Your task to perform on an android device: star an email in the gmail app Image 0: 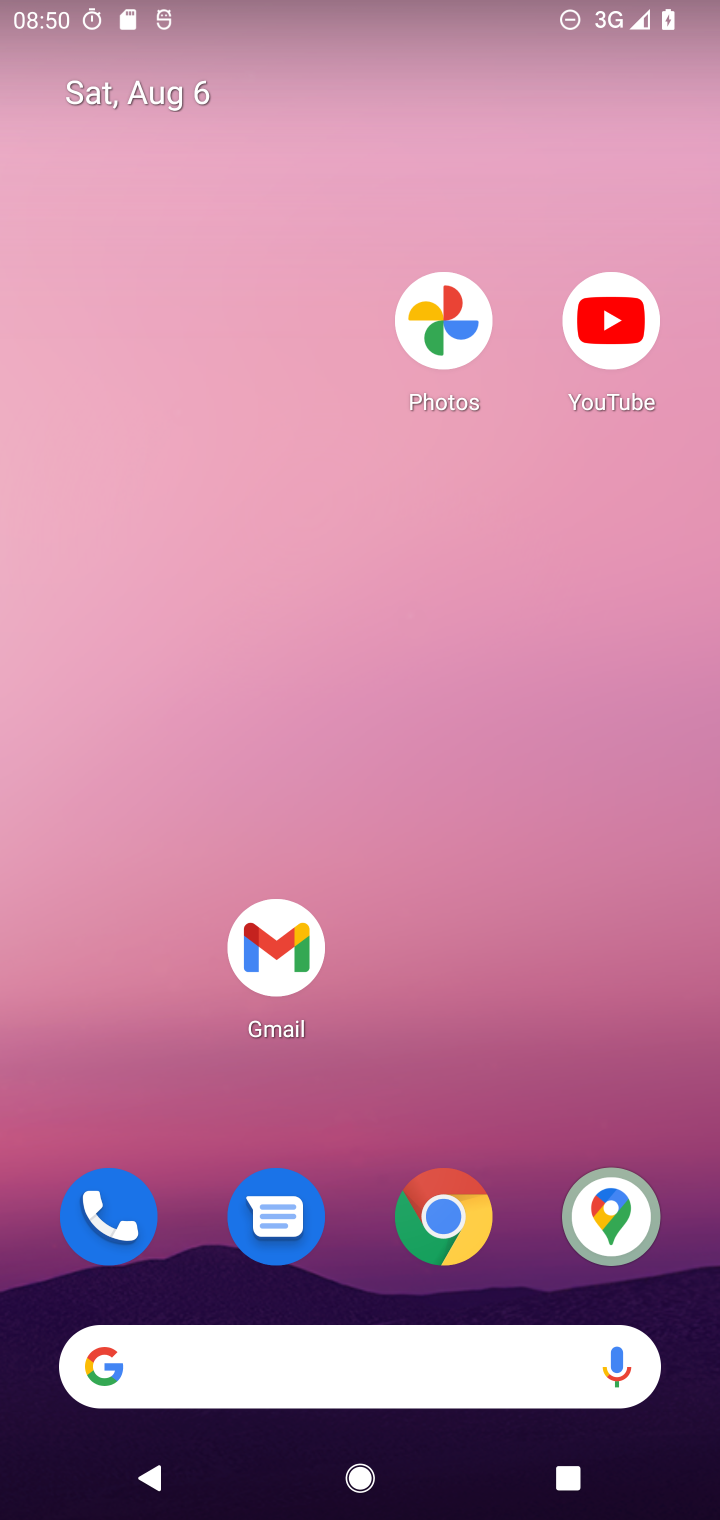
Step 0: drag from (596, 1024) to (619, 150)
Your task to perform on an android device: star an email in the gmail app Image 1: 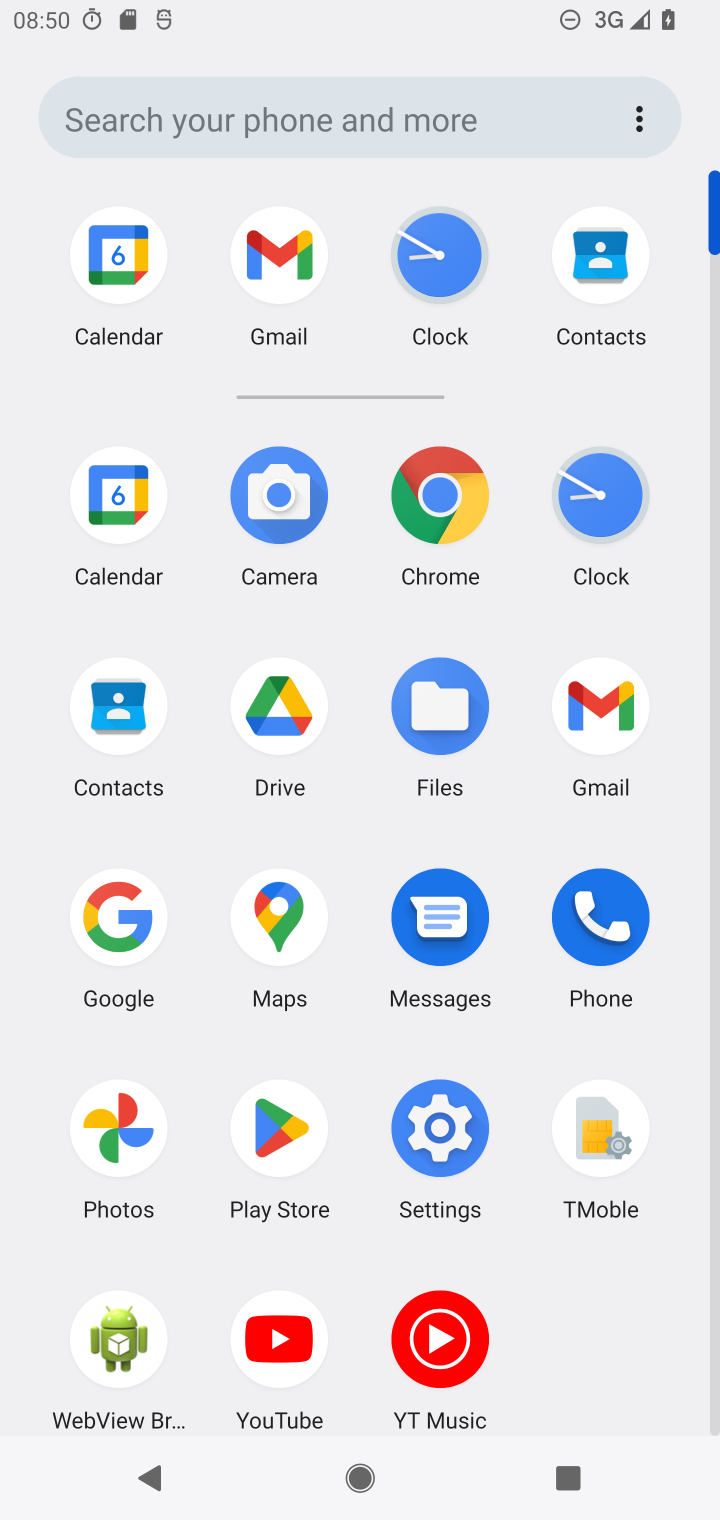
Step 1: click (581, 710)
Your task to perform on an android device: star an email in the gmail app Image 2: 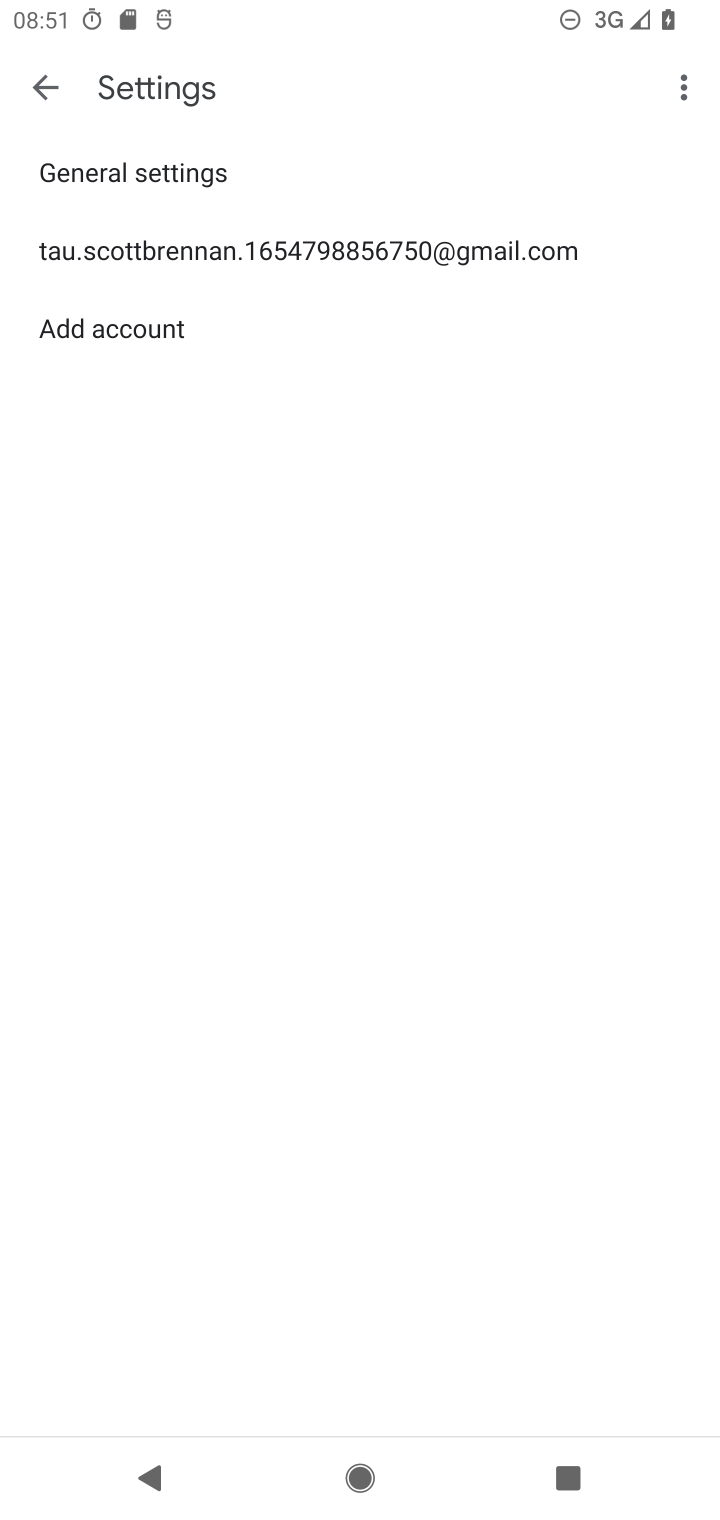
Step 2: press back button
Your task to perform on an android device: star an email in the gmail app Image 3: 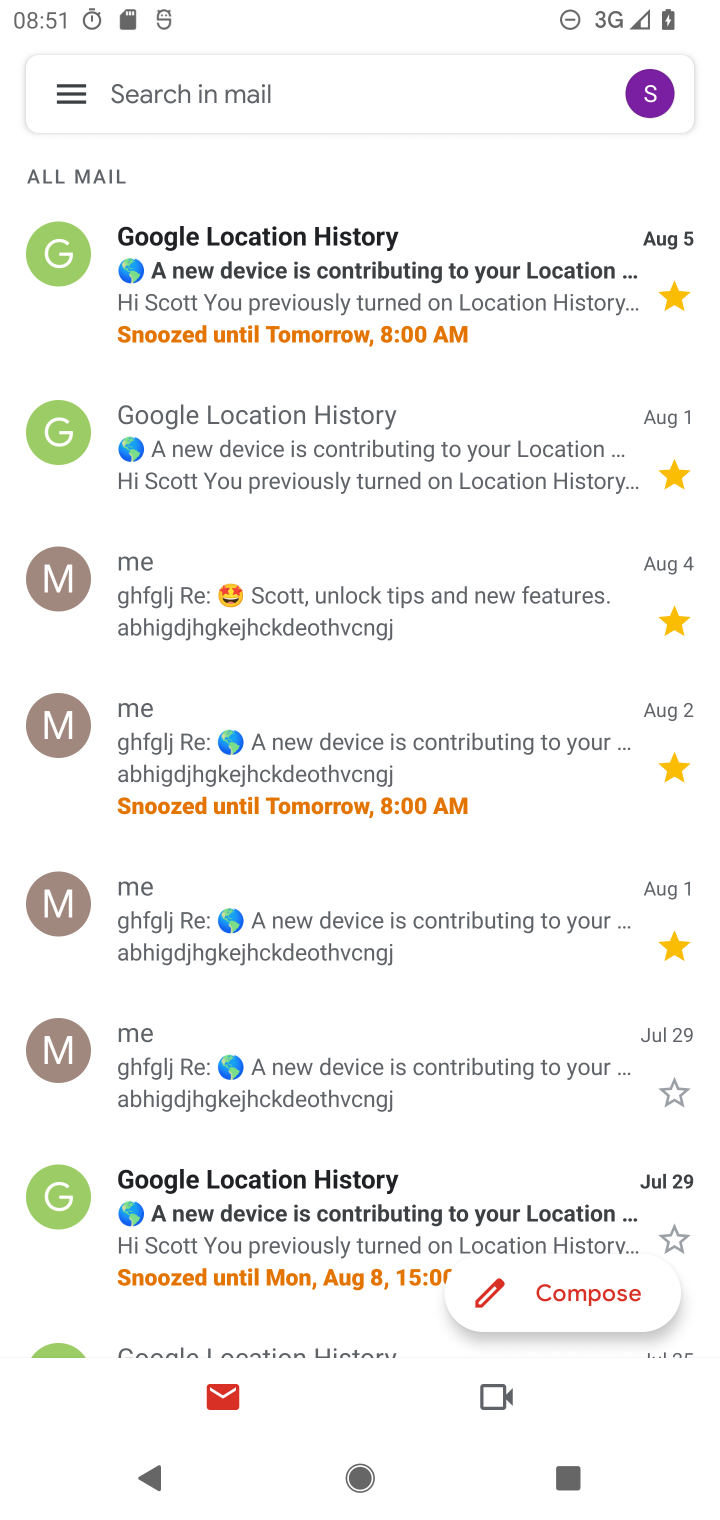
Step 3: click (670, 1083)
Your task to perform on an android device: star an email in the gmail app Image 4: 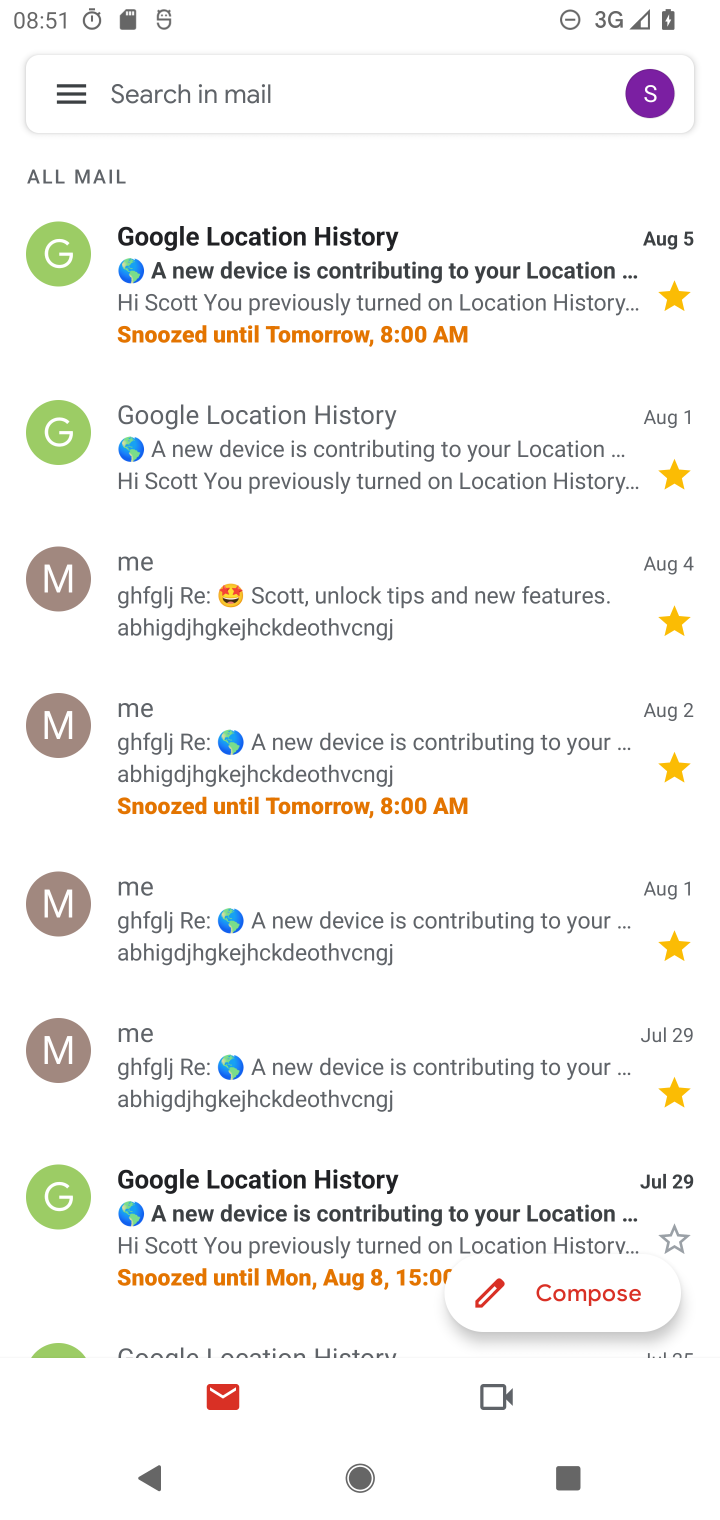
Step 4: press home button
Your task to perform on an android device: star an email in the gmail app Image 5: 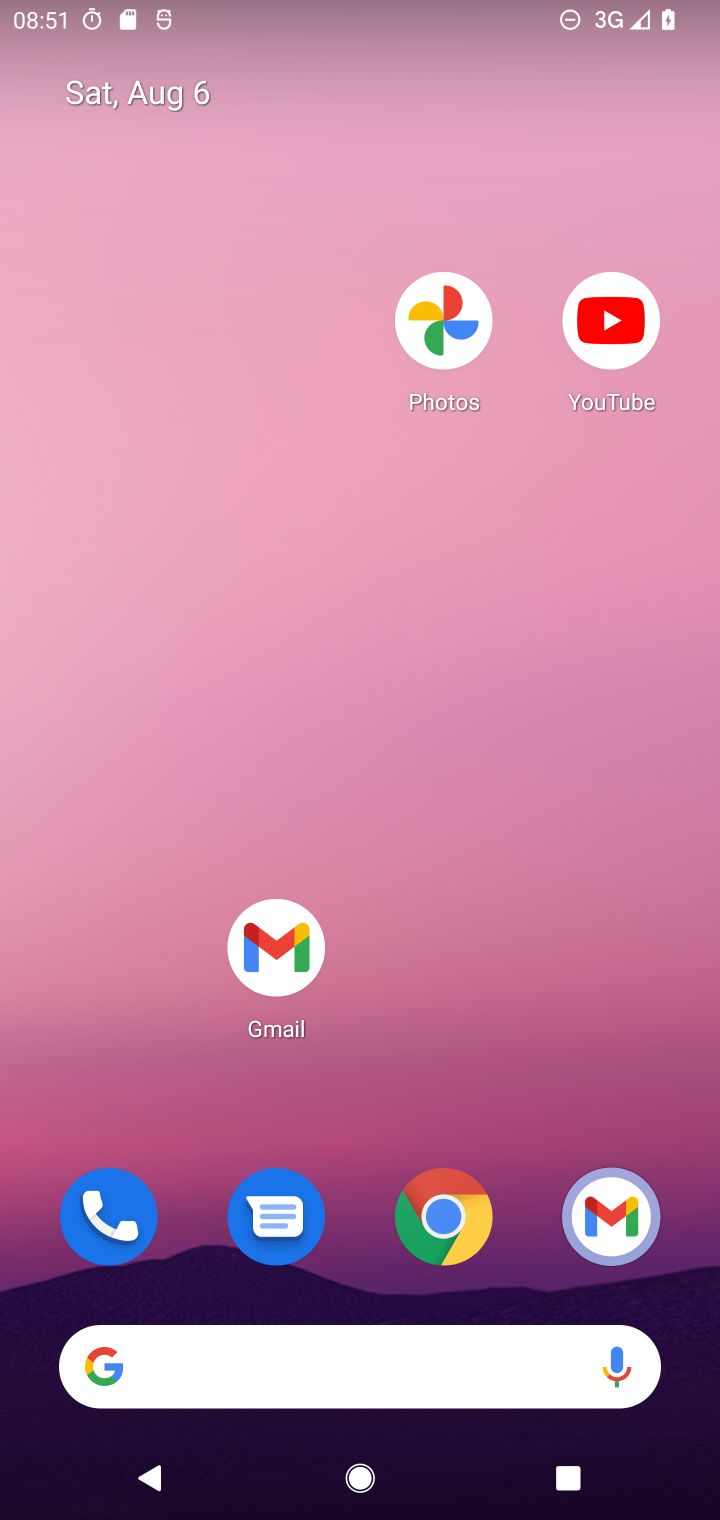
Step 5: drag from (423, 988) to (442, 165)
Your task to perform on an android device: star an email in the gmail app Image 6: 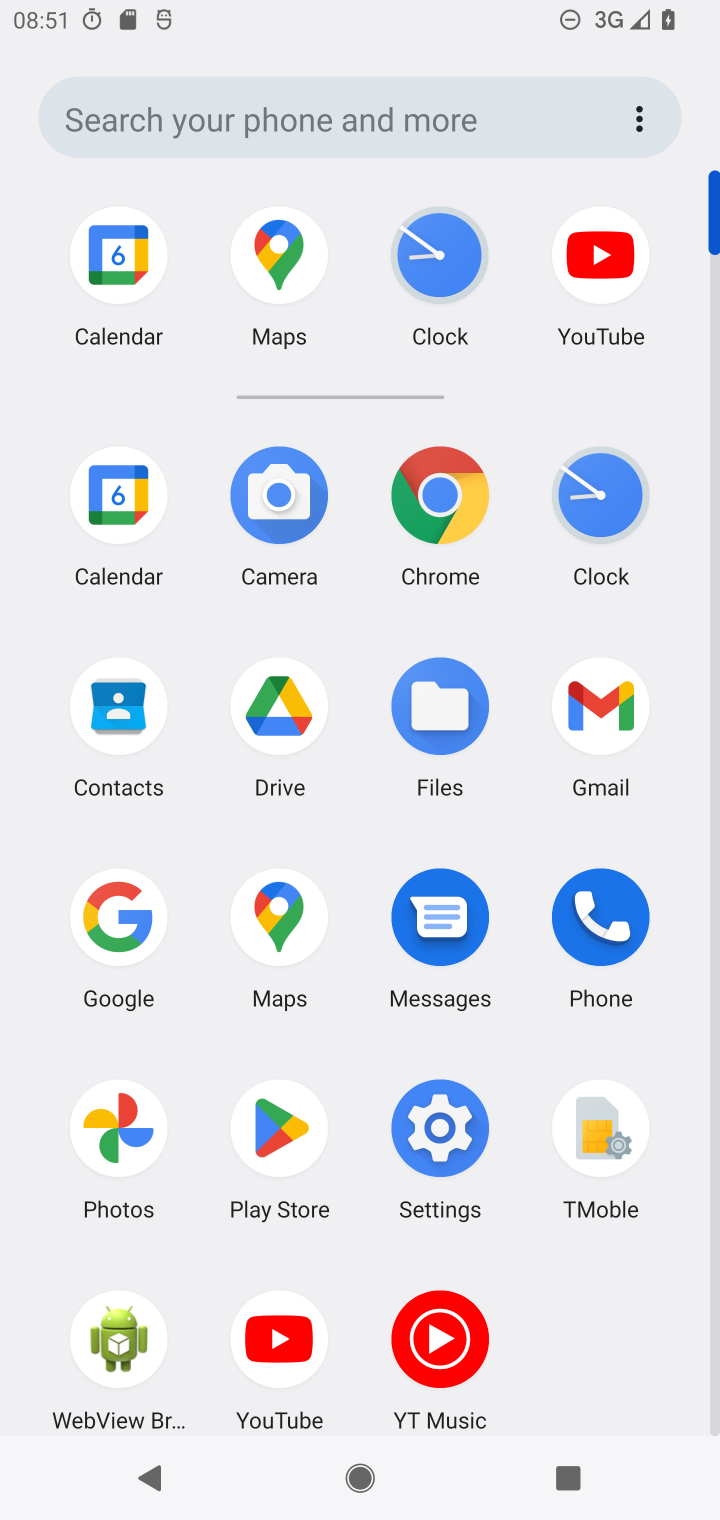
Step 6: click (586, 710)
Your task to perform on an android device: star an email in the gmail app Image 7: 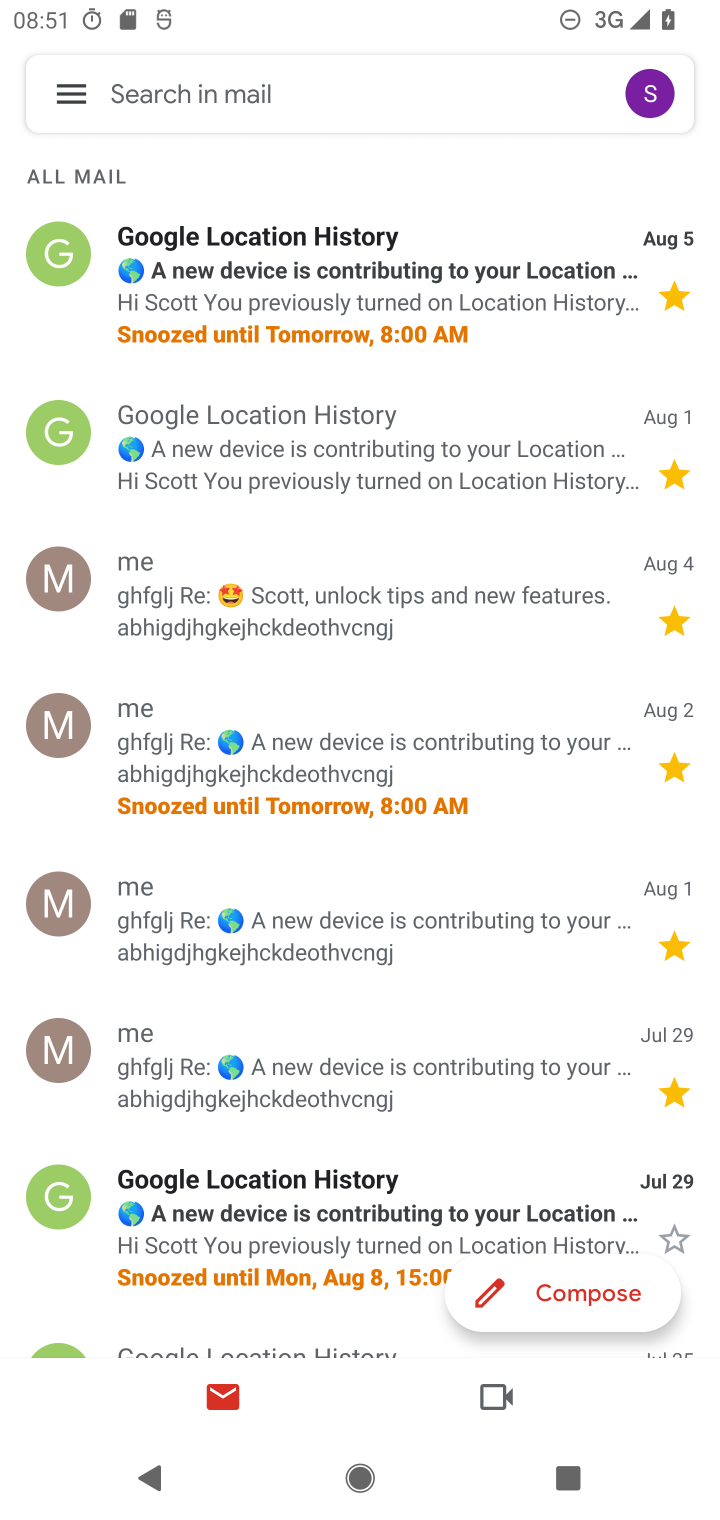
Step 7: click (677, 1243)
Your task to perform on an android device: star an email in the gmail app Image 8: 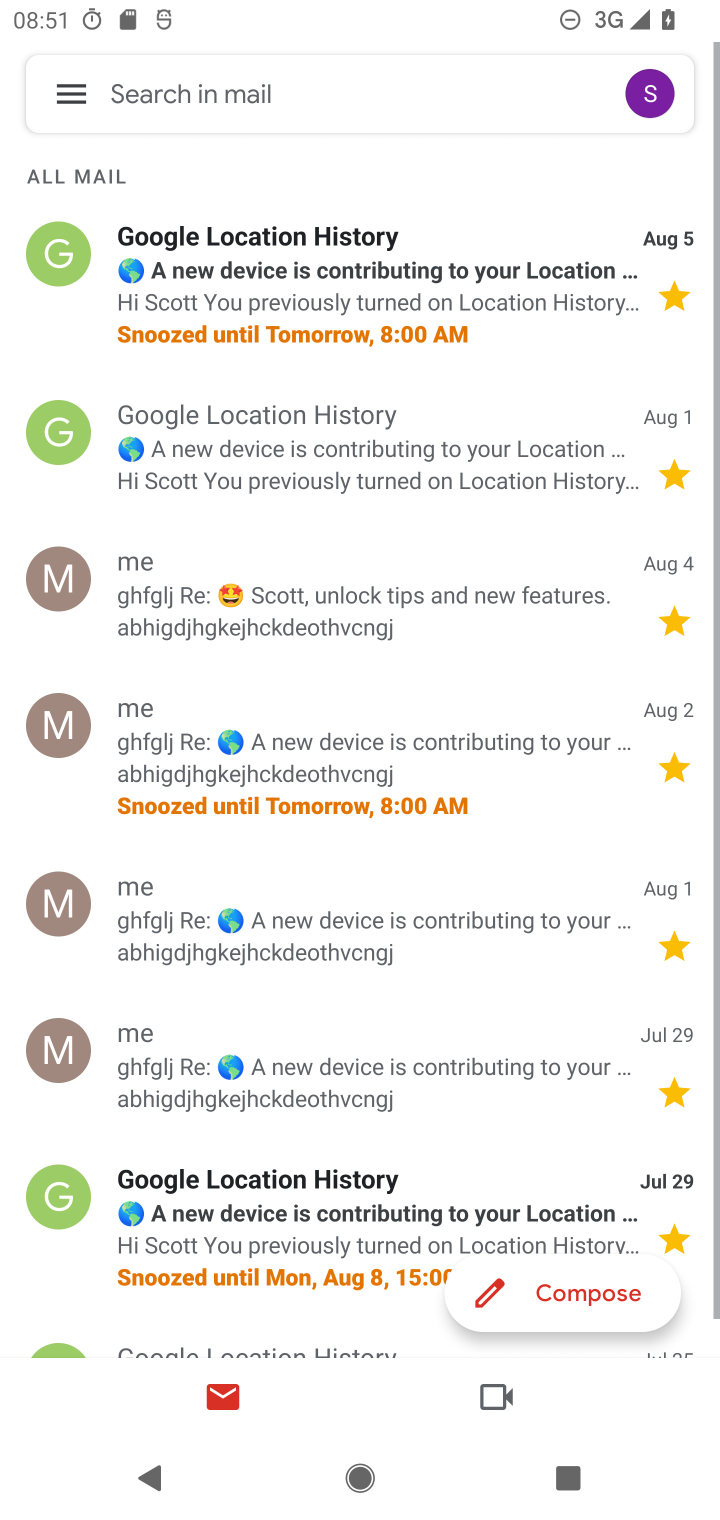
Step 8: task complete